Your task to perform on an android device: turn on the 12-hour format for clock Image 0: 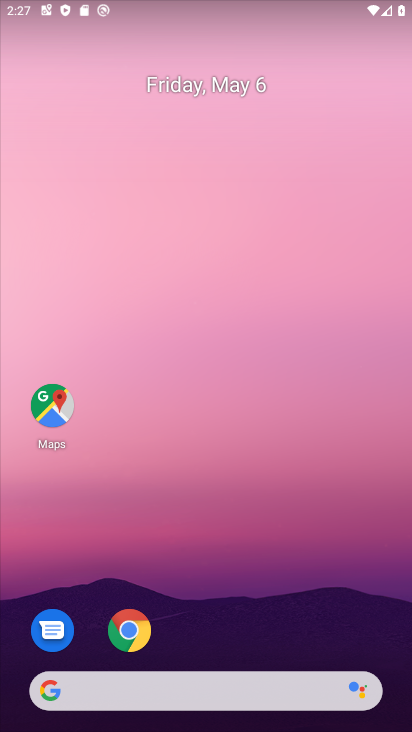
Step 0: drag from (154, 694) to (178, 45)
Your task to perform on an android device: turn on the 12-hour format for clock Image 1: 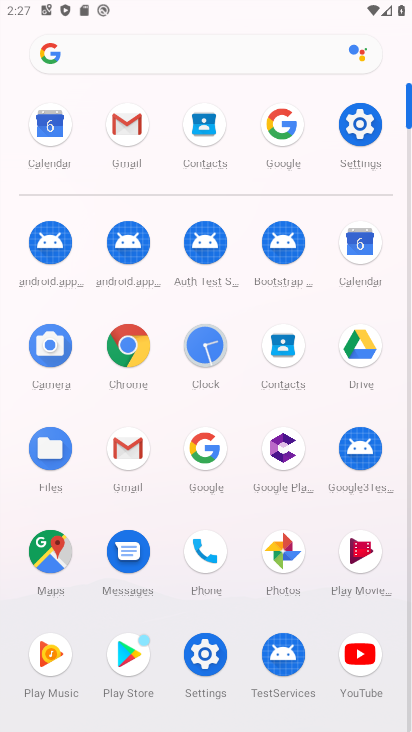
Step 1: click (205, 654)
Your task to perform on an android device: turn on the 12-hour format for clock Image 2: 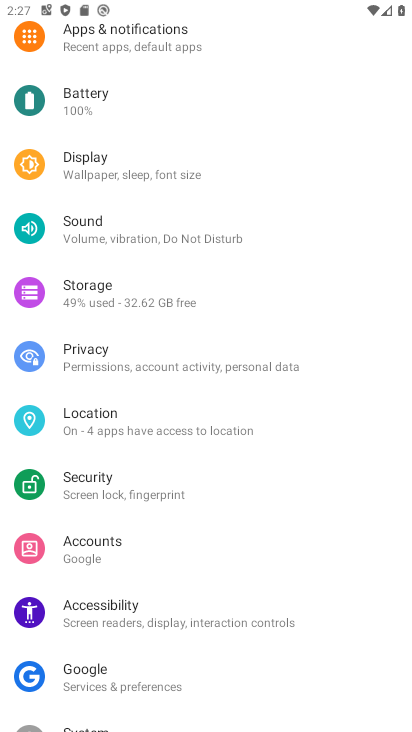
Step 2: drag from (244, 631) to (230, 91)
Your task to perform on an android device: turn on the 12-hour format for clock Image 3: 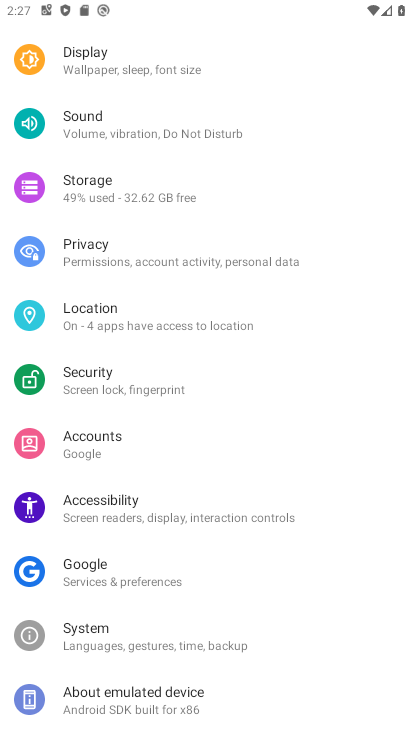
Step 3: click (116, 646)
Your task to perform on an android device: turn on the 12-hour format for clock Image 4: 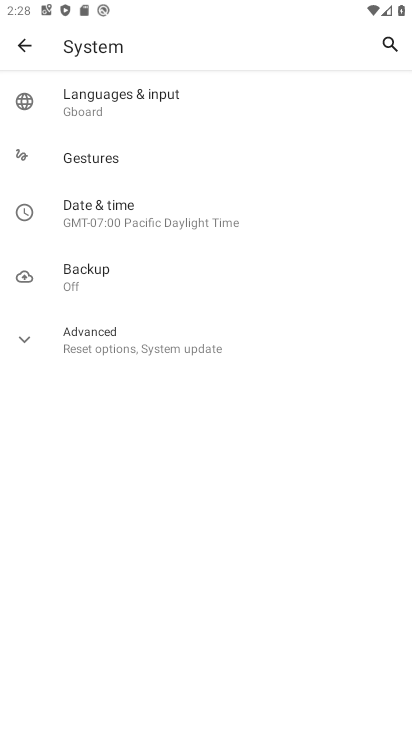
Step 4: click (111, 224)
Your task to perform on an android device: turn on the 12-hour format for clock Image 5: 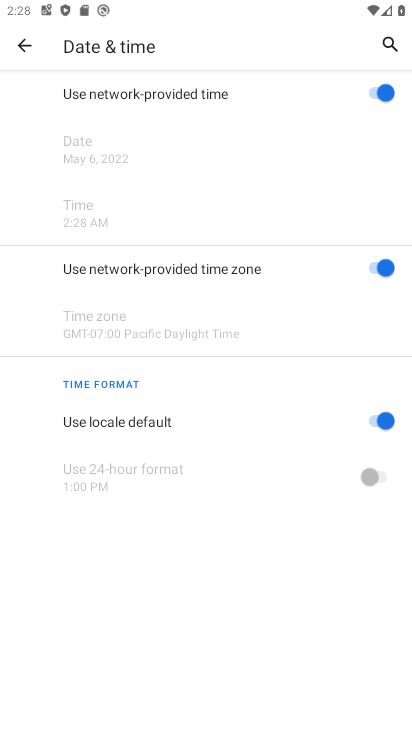
Step 5: task complete